Your task to perform on an android device: Open Yahoo.com Image 0: 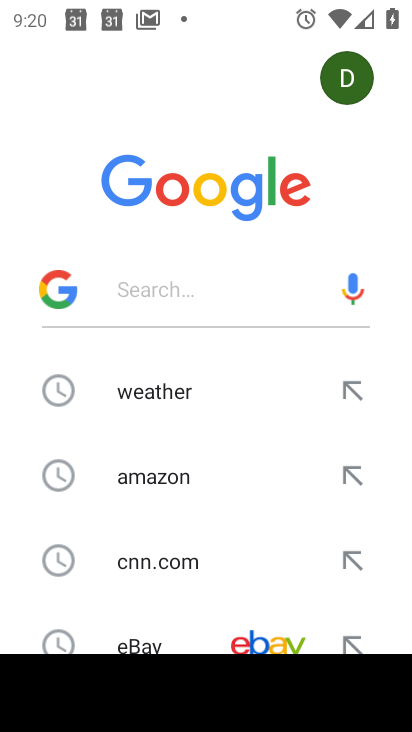
Step 0: type "yahoo.com"
Your task to perform on an android device: Open Yahoo.com Image 1: 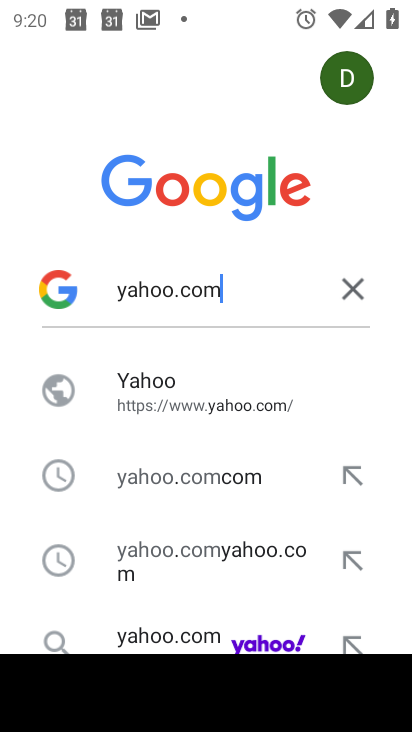
Step 1: click (220, 395)
Your task to perform on an android device: Open Yahoo.com Image 2: 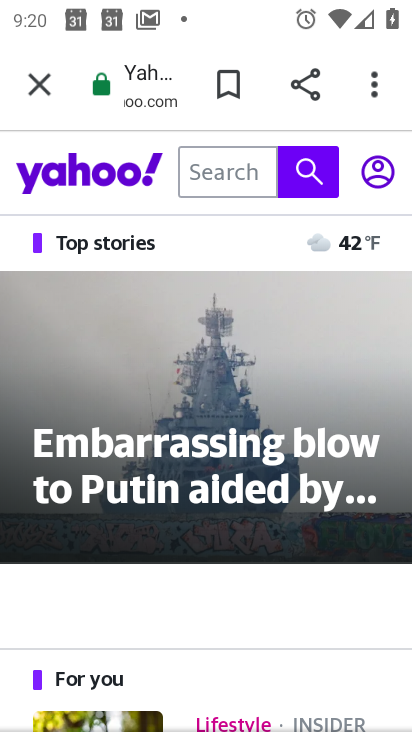
Step 2: task complete